Your task to perform on an android device: Open display settings Image 0: 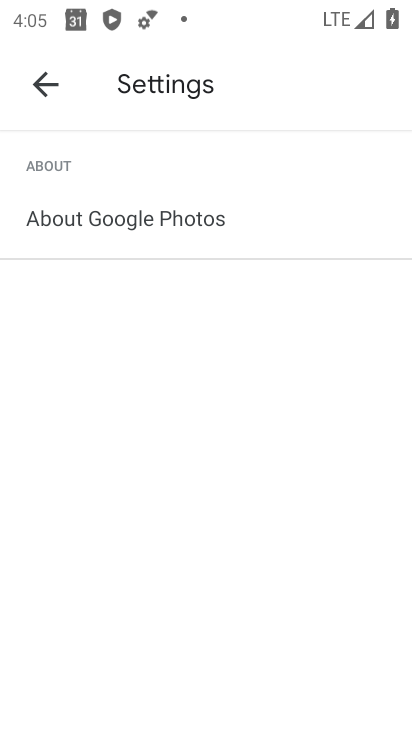
Step 0: press home button
Your task to perform on an android device: Open display settings Image 1: 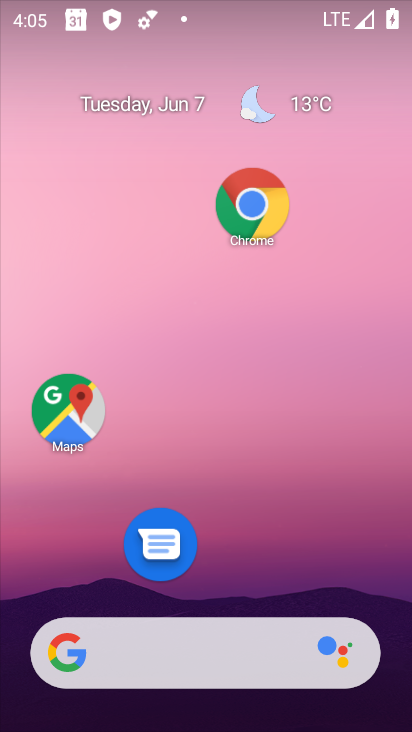
Step 1: drag from (220, 594) to (180, 177)
Your task to perform on an android device: Open display settings Image 2: 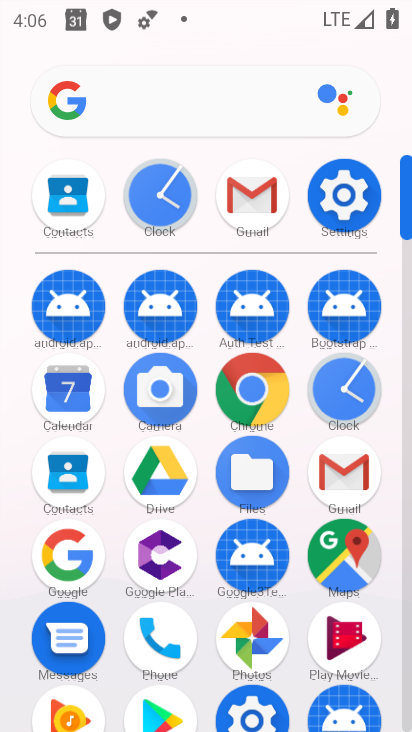
Step 2: click (343, 187)
Your task to perform on an android device: Open display settings Image 3: 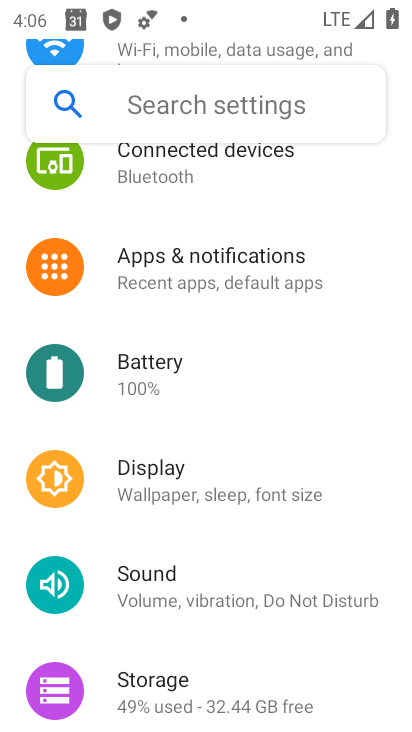
Step 3: click (196, 467)
Your task to perform on an android device: Open display settings Image 4: 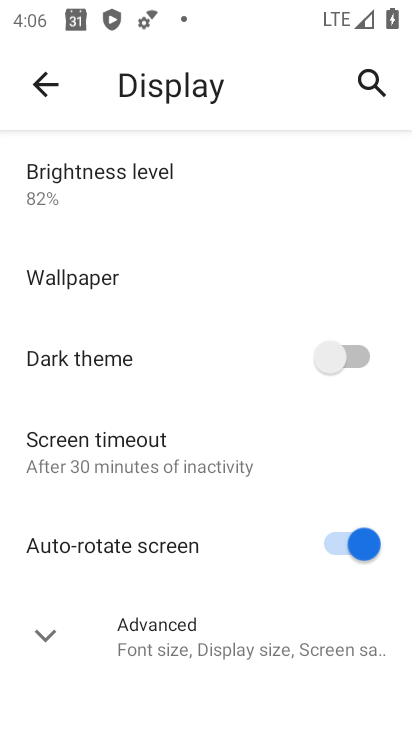
Step 4: click (48, 629)
Your task to perform on an android device: Open display settings Image 5: 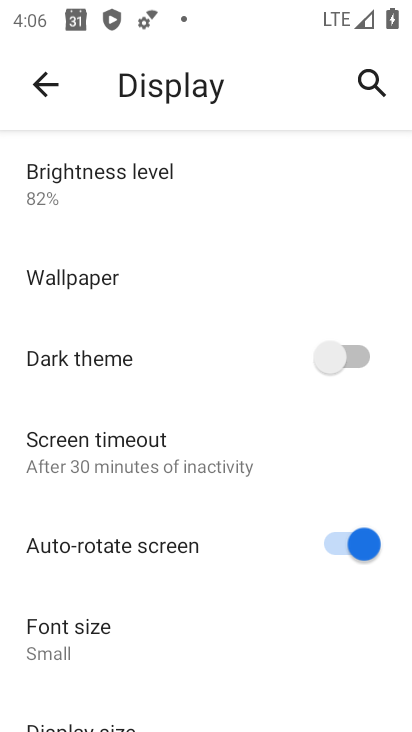
Step 5: task complete